Your task to perform on an android device: find snoozed emails in the gmail app Image 0: 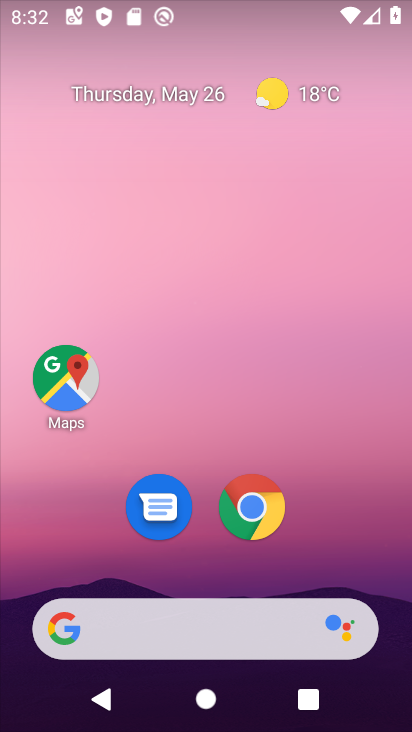
Step 0: drag from (242, 635) to (233, 81)
Your task to perform on an android device: find snoozed emails in the gmail app Image 1: 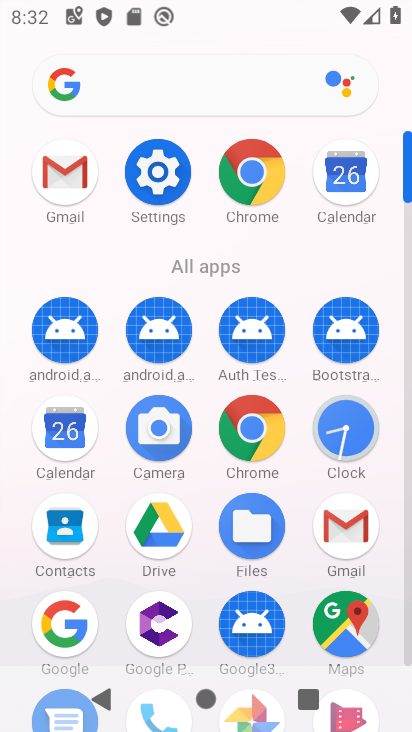
Step 1: click (63, 180)
Your task to perform on an android device: find snoozed emails in the gmail app Image 2: 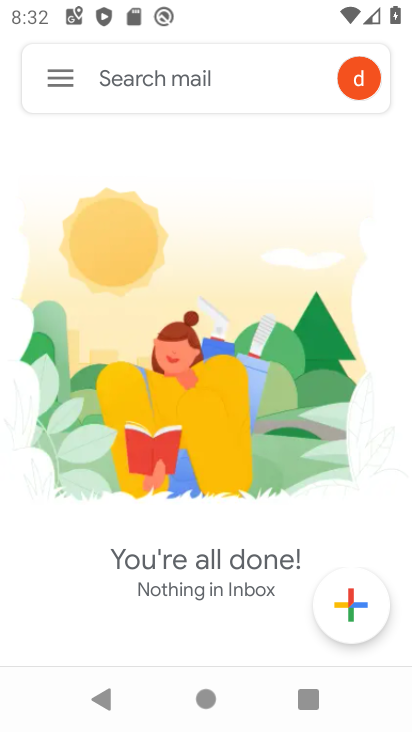
Step 2: click (48, 74)
Your task to perform on an android device: find snoozed emails in the gmail app Image 3: 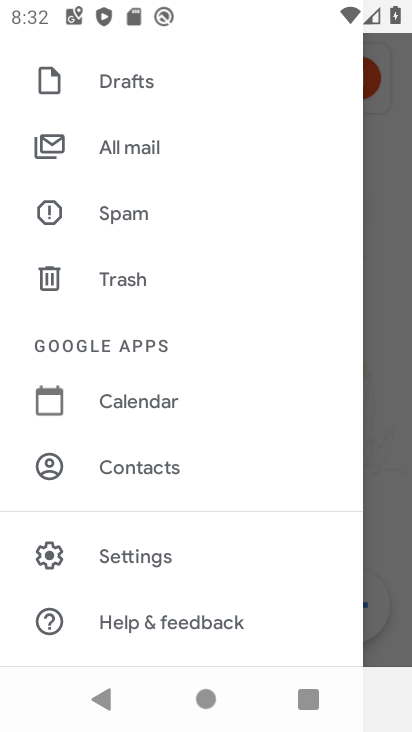
Step 3: drag from (144, 181) to (158, 471)
Your task to perform on an android device: find snoozed emails in the gmail app Image 4: 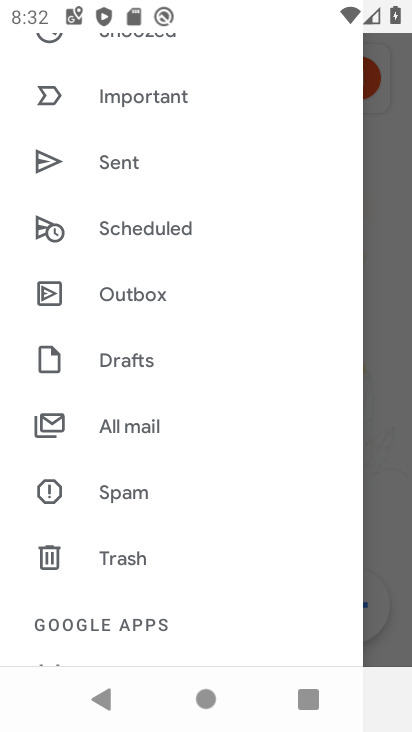
Step 4: drag from (124, 154) to (173, 271)
Your task to perform on an android device: find snoozed emails in the gmail app Image 5: 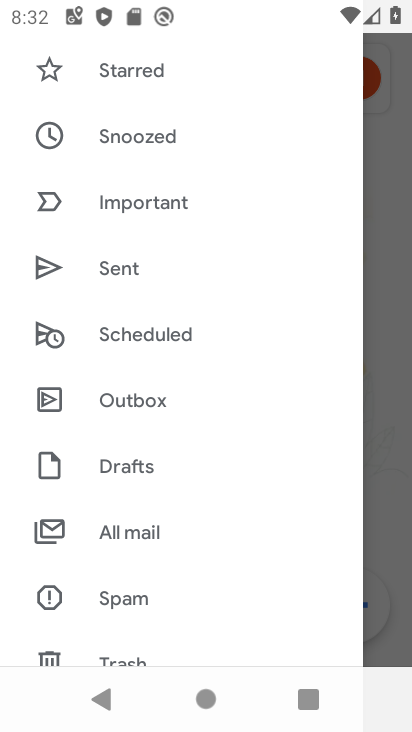
Step 5: click (150, 135)
Your task to perform on an android device: find snoozed emails in the gmail app Image 6: 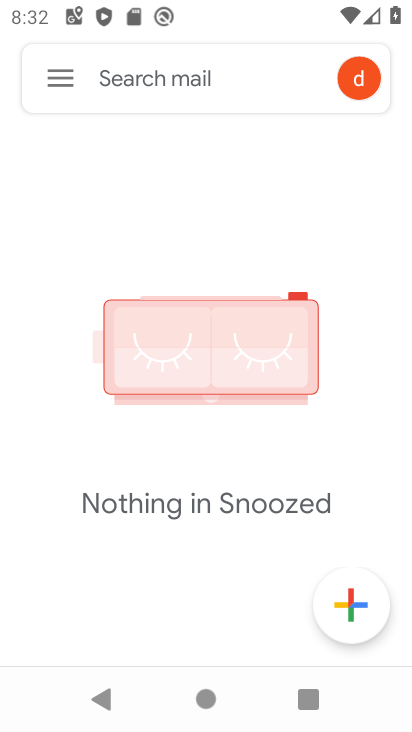
Step 6: task complete